Your task to perform on an android device: Clear the cart on amazon.com. Image 0: 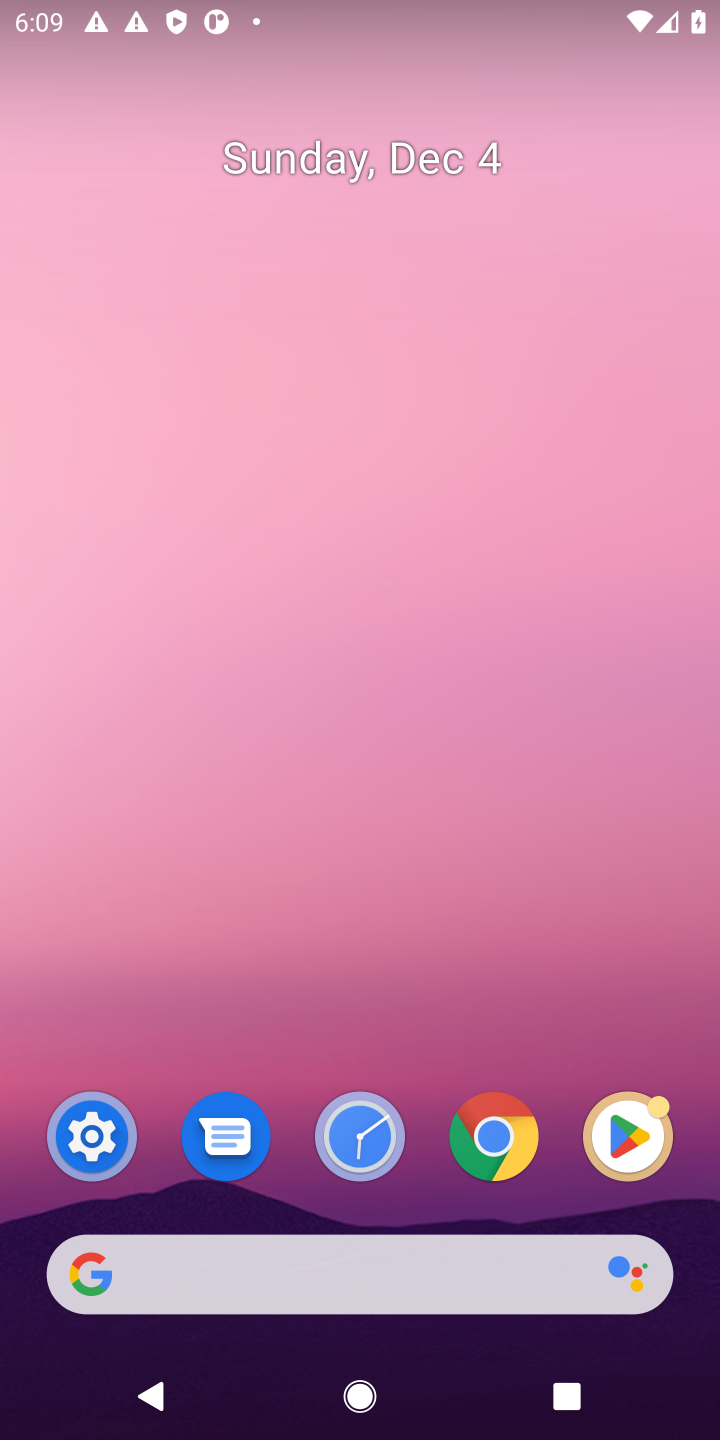
Step 0: click (499, 1136)
Your task to perform on an android device: Clear the cart on amazon.com. Image 1: 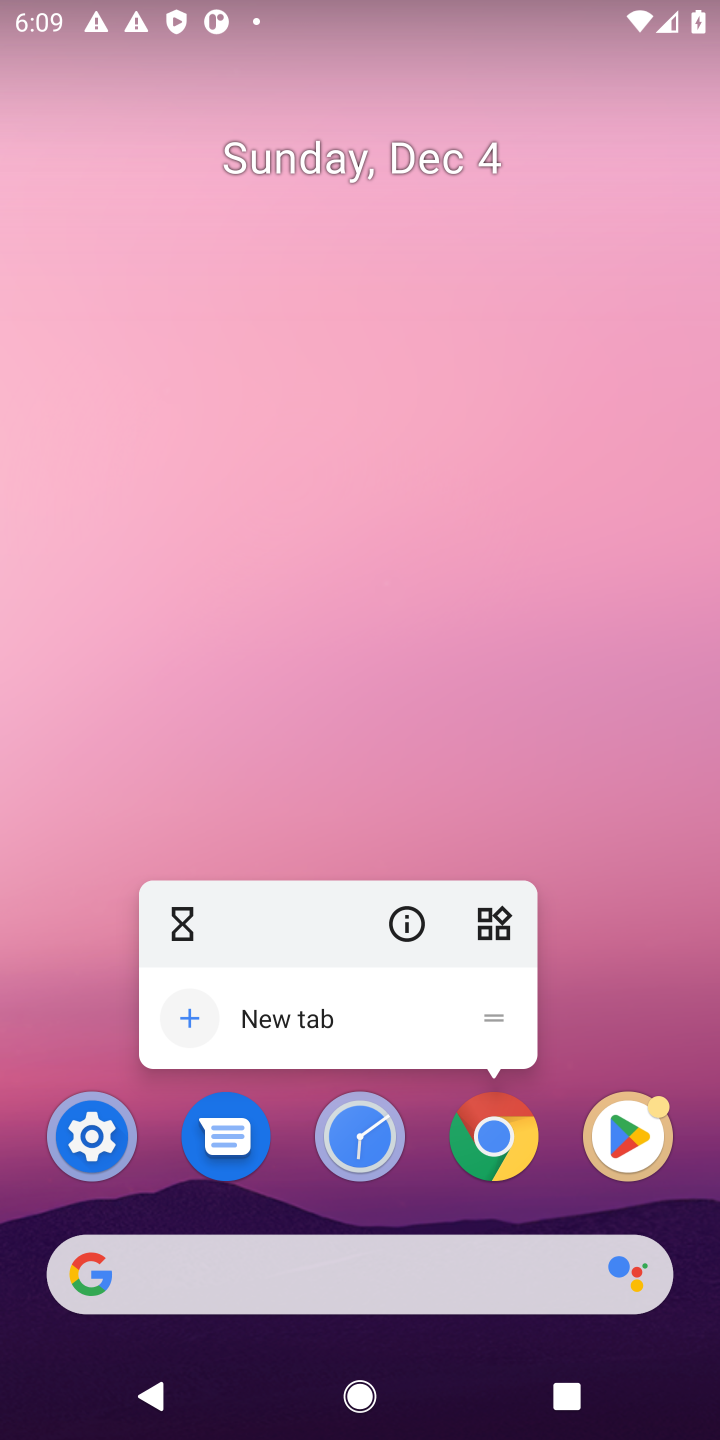
Step 1: click (499, 1136)
Your task to perform on an android device: Clear the cart on amazon.com. Image 2: 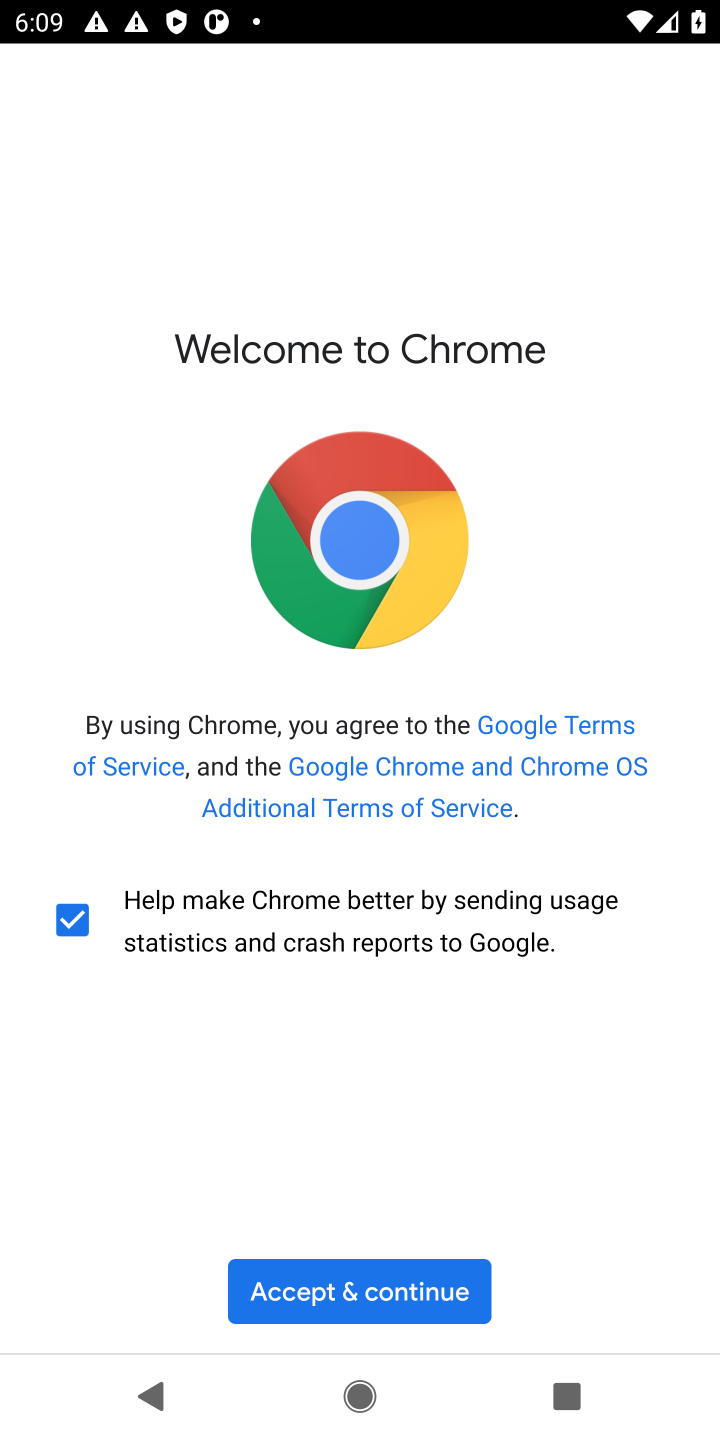
Step 2: click (364, 1287)
Your task to perform on an android device: Clear the cart on amazon.com. Image 3: 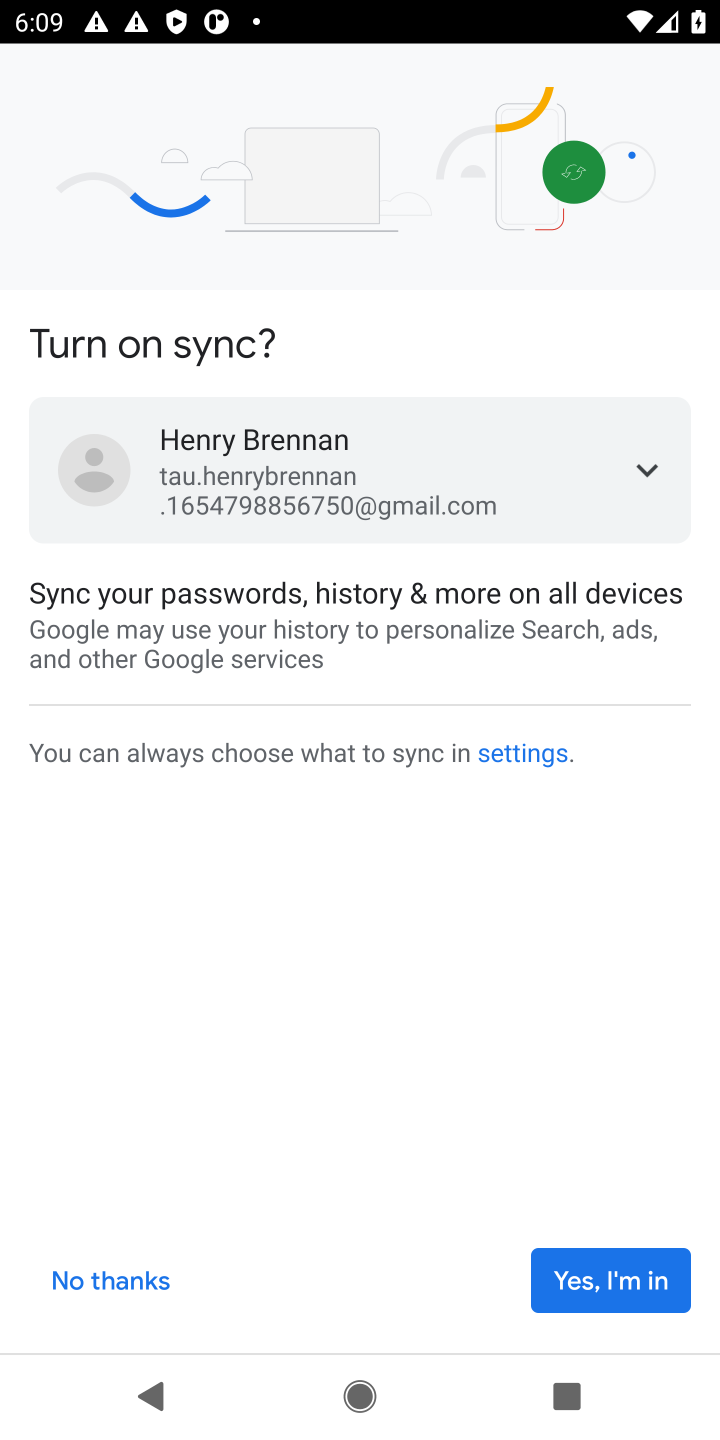
Step 3: click (110, 1286)
Your task to perform on an android device: Clear the cart on amazon.com. Image 4: 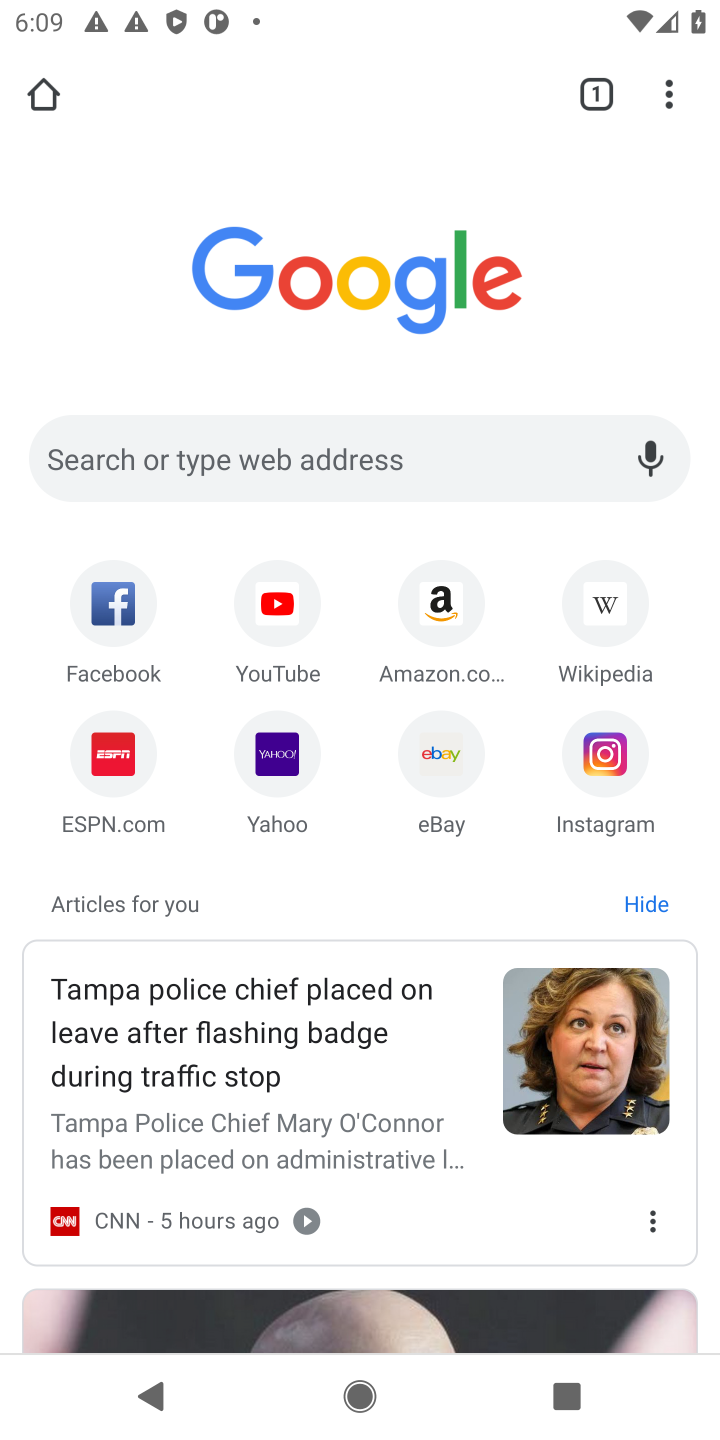
Step 4: click (429, 625)
Your task to perform on an android device: Clear the cart on amazon.com. Image 5: 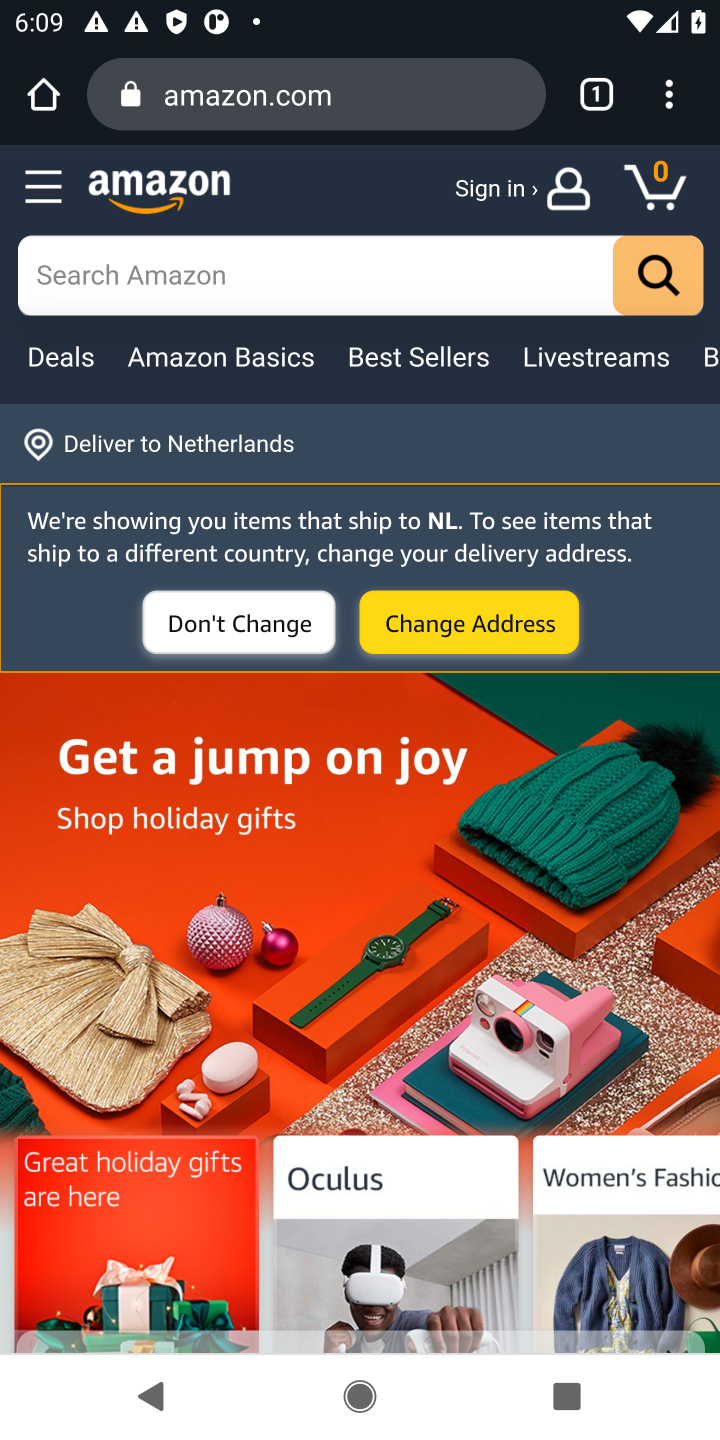
Step 5: click (654, 195)
Your task to perform on an android device: Clear the cart on amazon.com. Image 6: 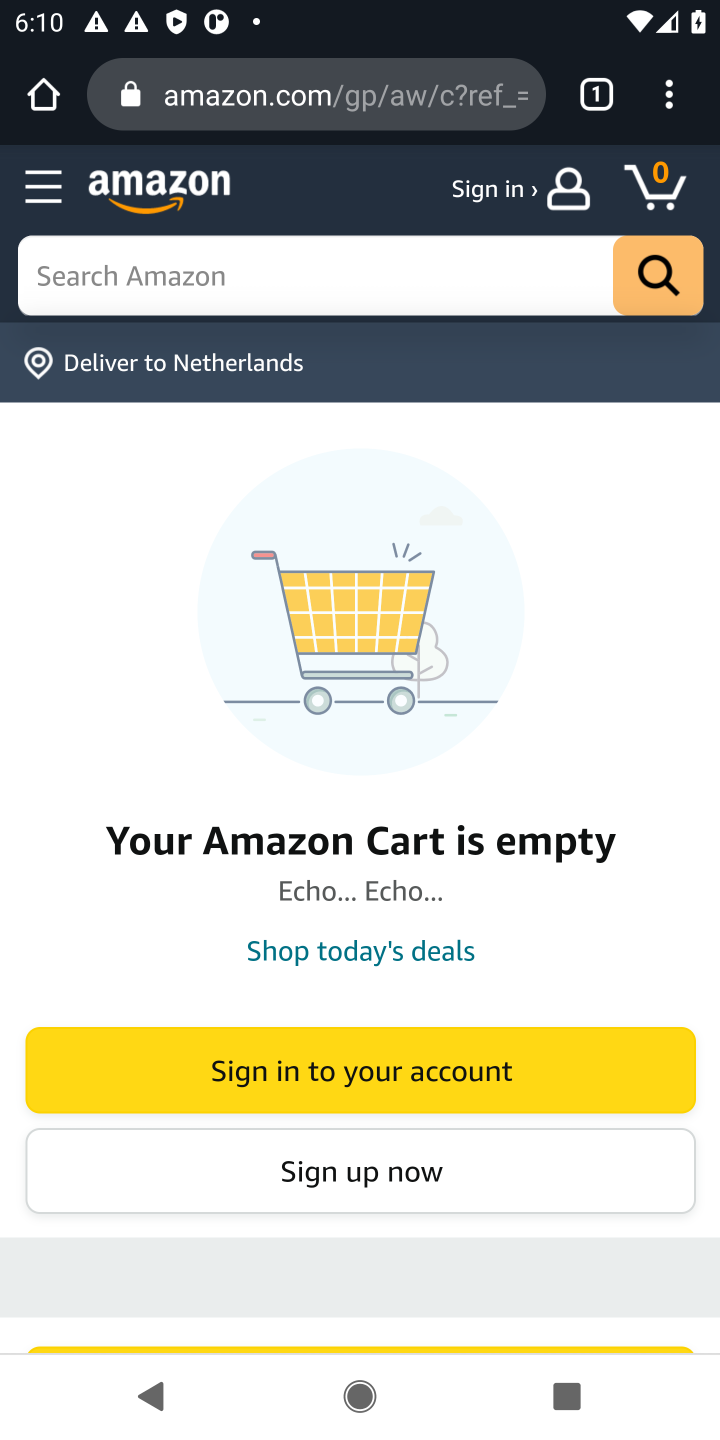
Step 6: task complete